Your task to perform on an android device: refresh tabs in the chrome app Image 0: 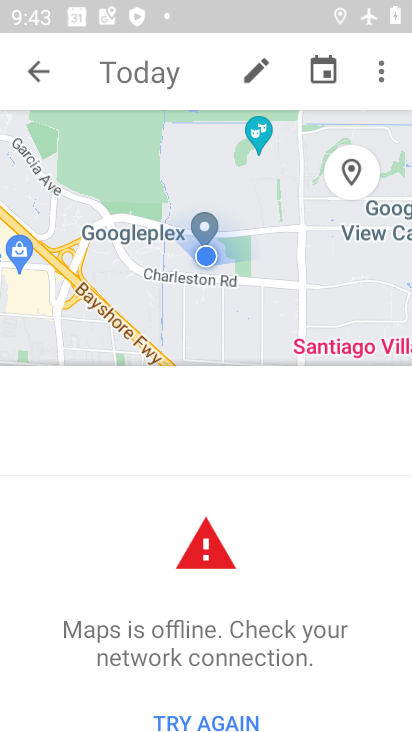
Step 0: press home button
Your task to perform on an android device: refresh tabs in the chrome app Image 1: 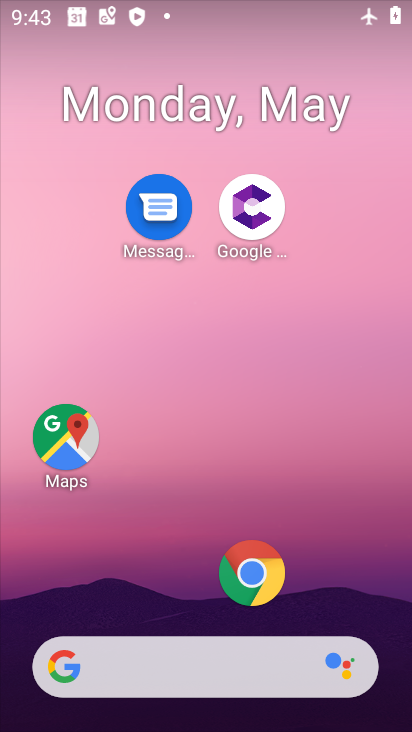
Step 1: click (257, 584)
Your task to perform on an android device: refresh tabs in the chrome app Image 2: 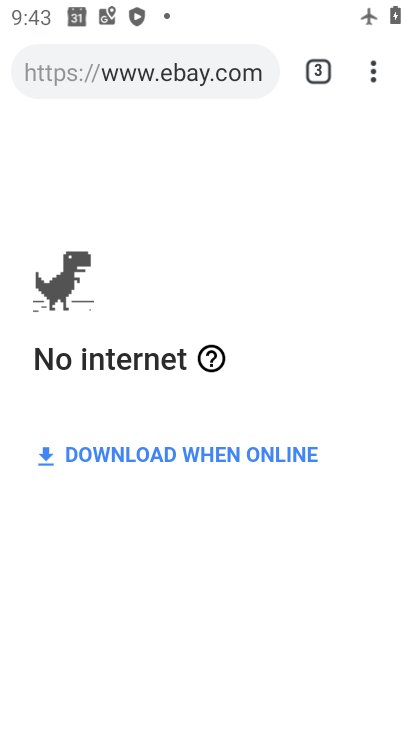
Step 2: click (364, 72)
Your task to perform on an android device: refresh tabs in the chrome app Image 3: 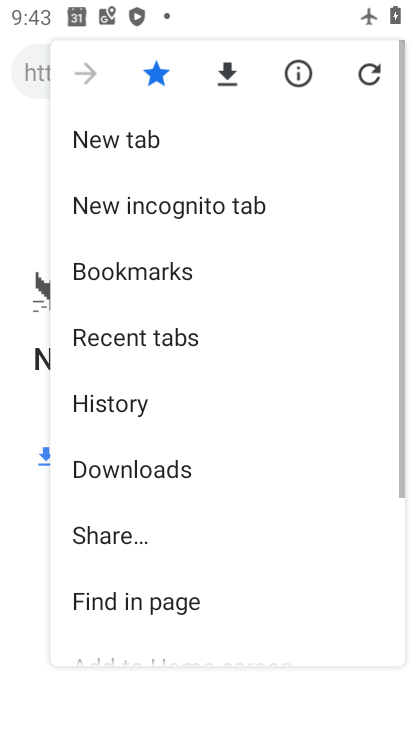
Step 3: click (370, 84)
Your task to perform on an android device: refresh tabs in the chrome app Image 4: 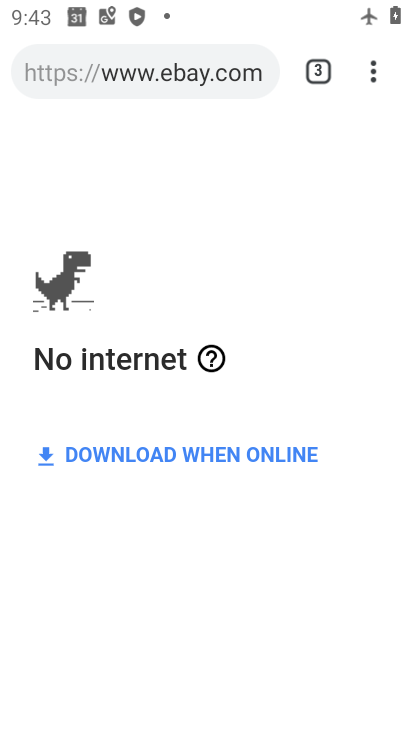
Step 4: task complete